Your task to perform on an android device: Open Chrome and go to settings Image 0: 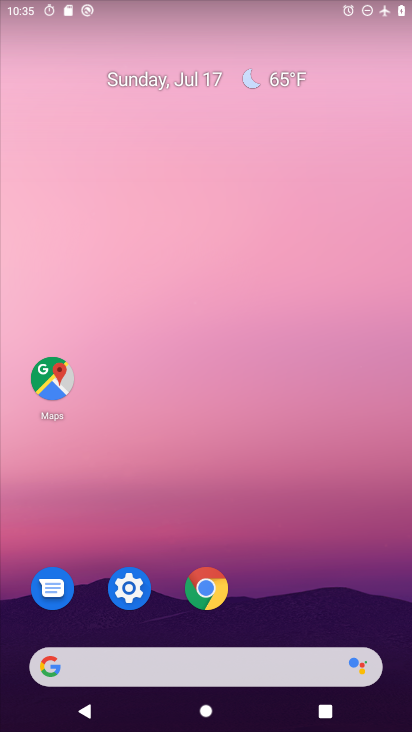
Step 0: drag from (219, 689) to (244, 70)
Your task to perform on an android device: Open Chrome and go to settings Image 1: 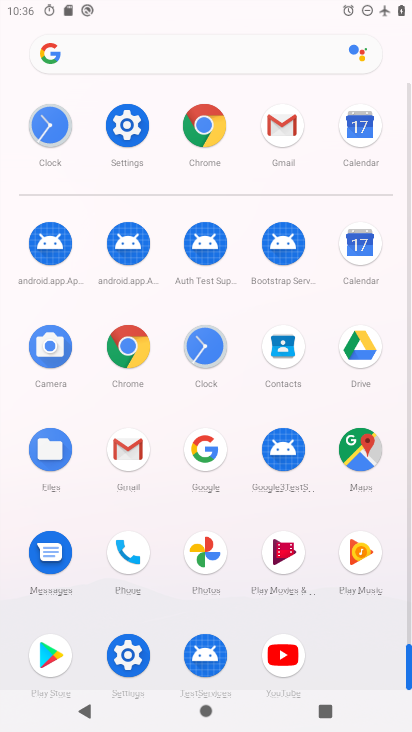
Step 1: click (140, 120)
Your task to perform on an android device: Open Chrome and go to settings Image 2: 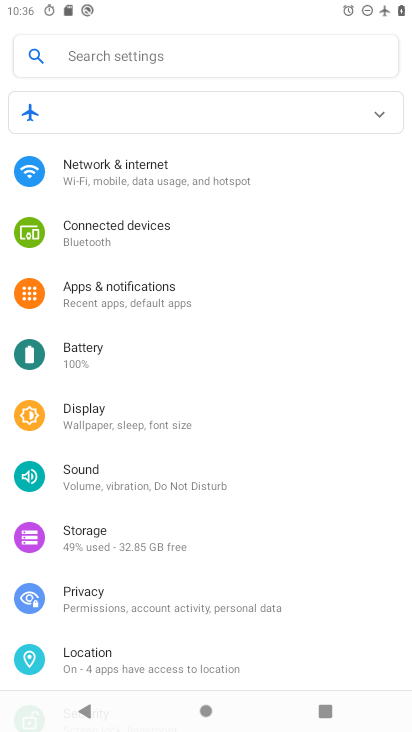
Step 2: drag from (178, 436) to (160, 198)
Your task to perform on an android device: Open Chrome and go to settings Image 3: 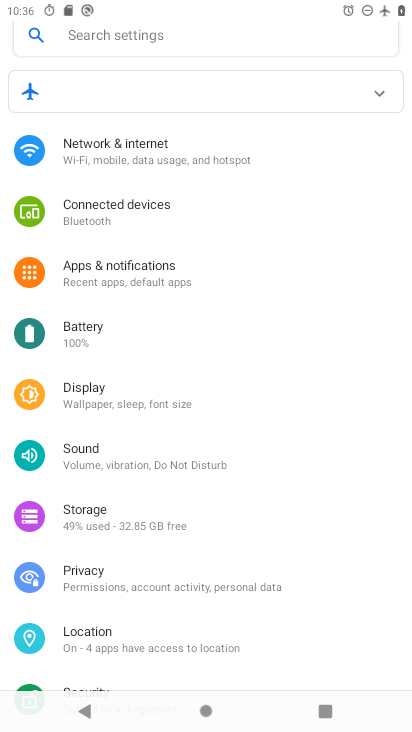
Step 3: drag from (110, 302) to (122, 218)
Your task to perform on an android device: Open Chrome and go to settings Image 4: 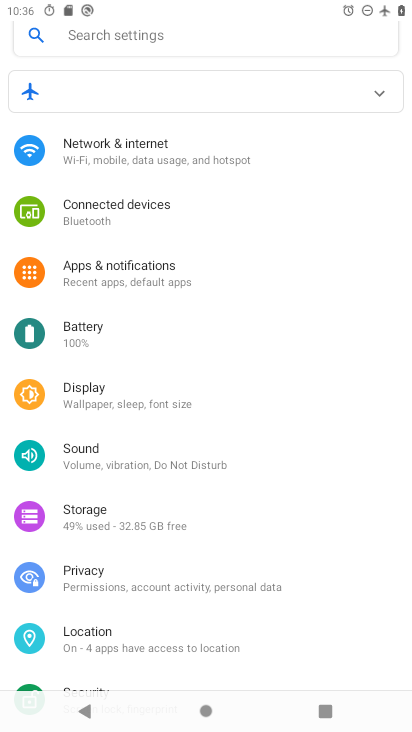
Step 4: press back button
Your task to perform on an android device: Open Chrome and go to settings Image 5: 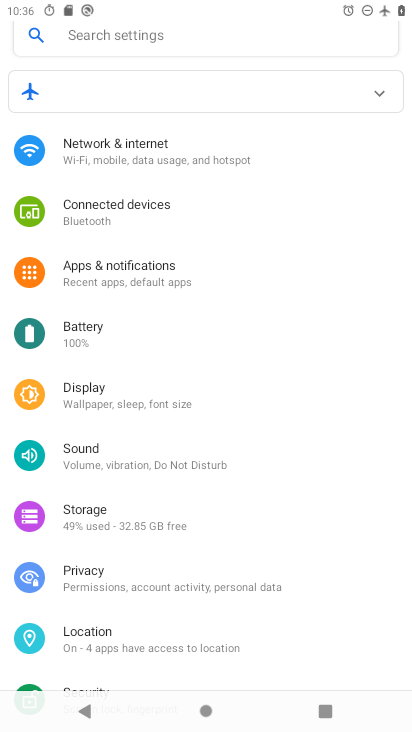
Step 5: press back button
Your task to perform on an android device: Open Chrome and go to settings Image 6: 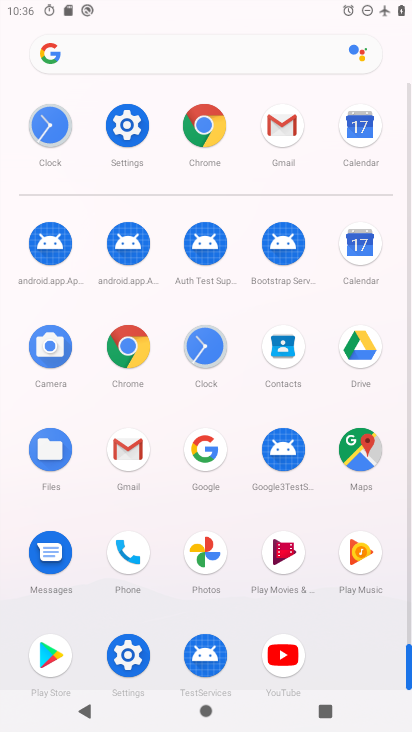
Step 6: press back button
Your task to perform on an android device: Open Chrome and go to settings Image 7: 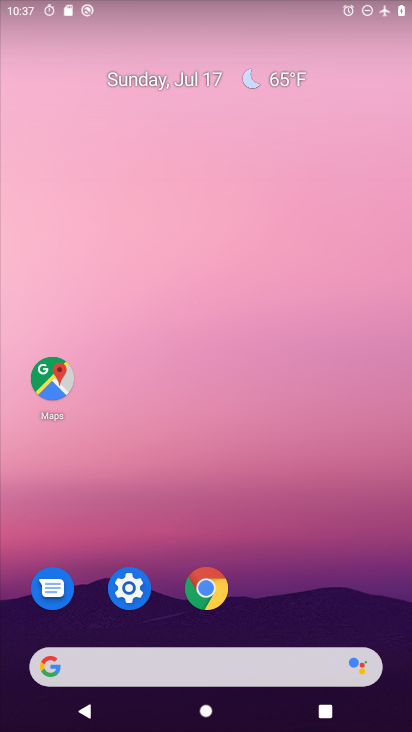
Step 7: press home button
Your task to perform on an android device: Open Chrome and go to settings Image 8: 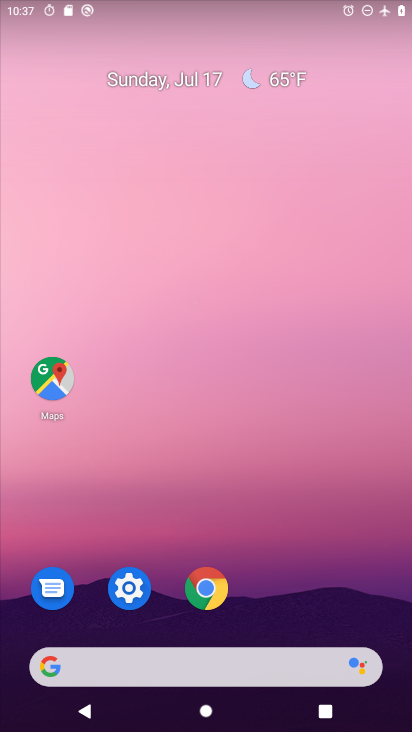
Step 8: drag from (268, 657) to (205, 116)
Your task to perform on an android device: Open Chrome and go to settings Image 9: 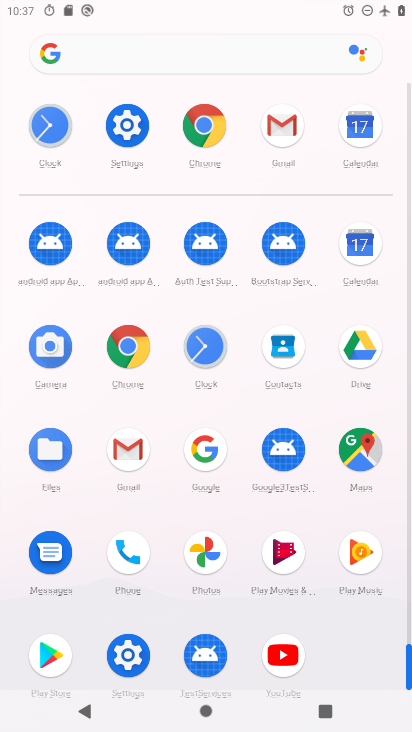
Step 9: click (134, 116)
Your task to perform on an android device: Open Chrome and go to settings Image 10: 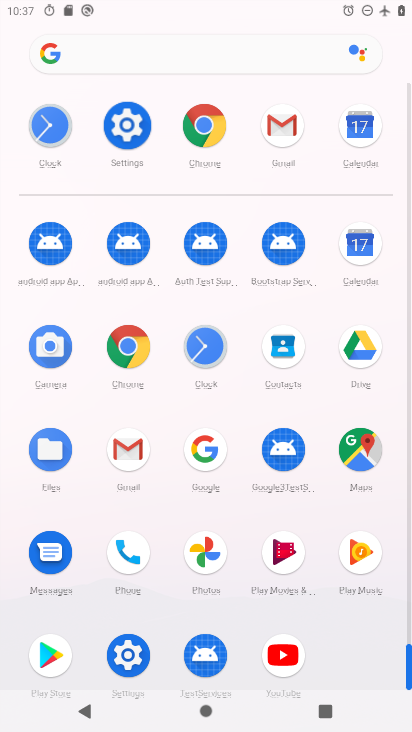
Step 10: click (134, 116)
Your task to perform on an android device: Open Chrome and go to settings Image 11: 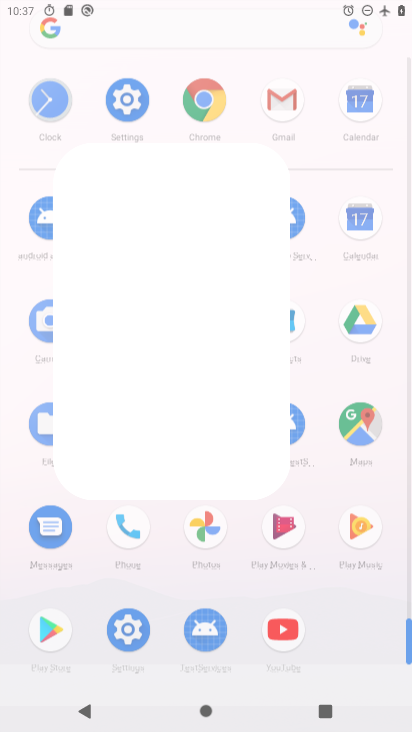
Step 11: click (134, 116)
Your task to perform on an android device: Open Chrome and go to settings Image 12: 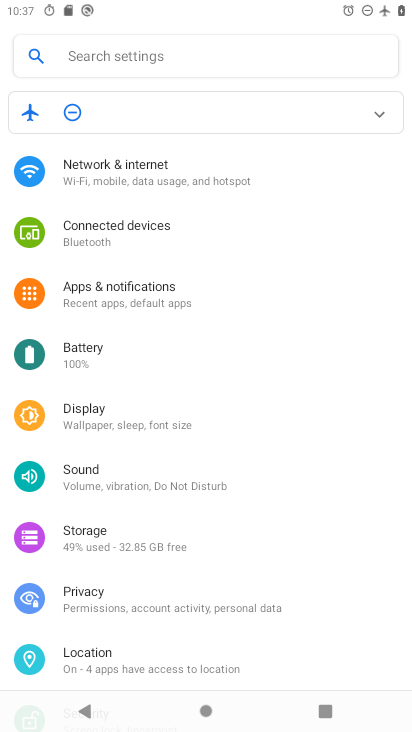
Step 12: press home button
Your task to perform on an android device: Open Chrome and go to settings Image 13: 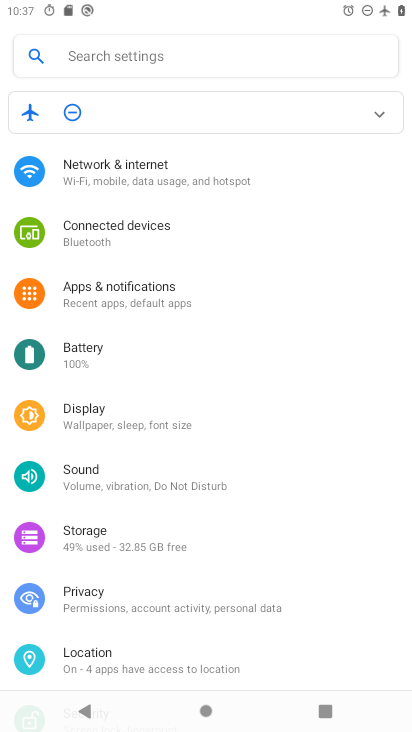
Step 13: press home button
Your task to perform on an android device: Open Chrome and go to settings Image 14: 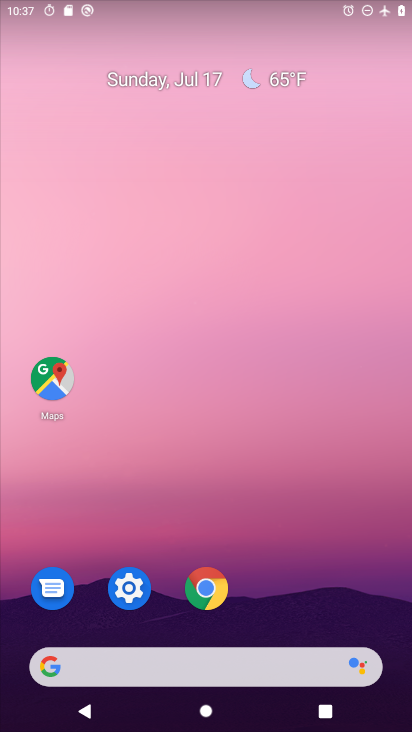
Step 14: click (152, 8)
Your task to perform on an android device: Open Chrome and go to settings Image 15: 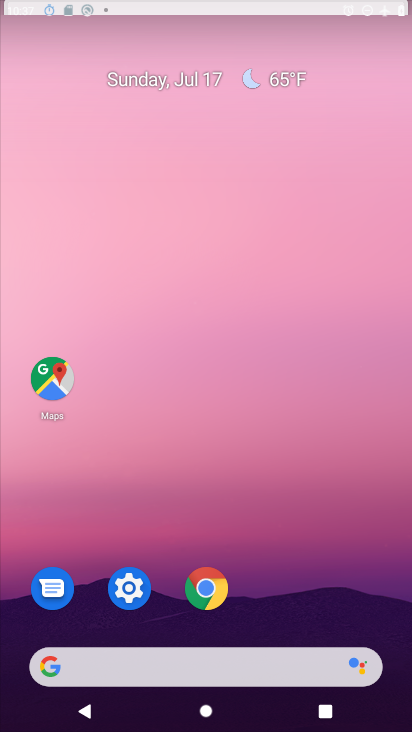
Step 15: drag from (229, 477) to (268, 5)
Your task to perform on an android device: Open Chrome and go to settings Image 16: 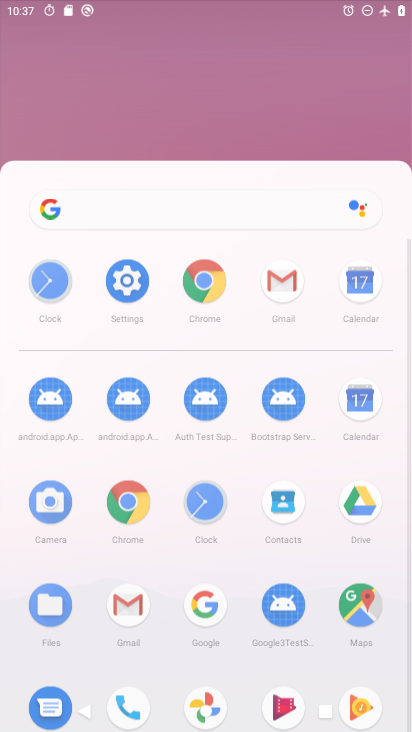
Step 16: drag from (265, 661) to (296, 17)
Your task to perform on an android device: Open Chrome and go to settings Image 17: 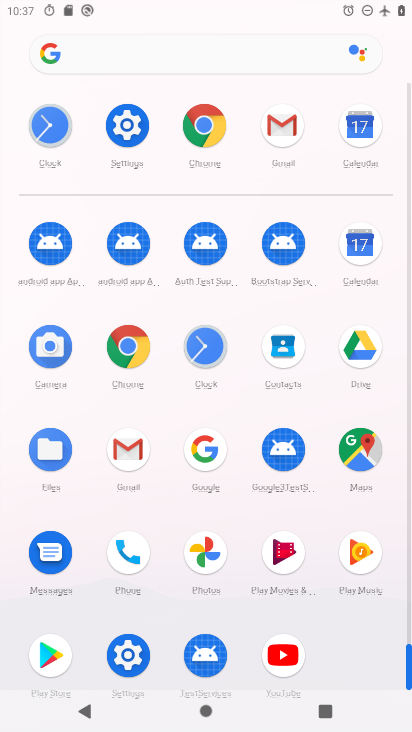
Step 17: click (218, 127)
Your task to perform on an android device: Open Chrome and go to settings Image 18: 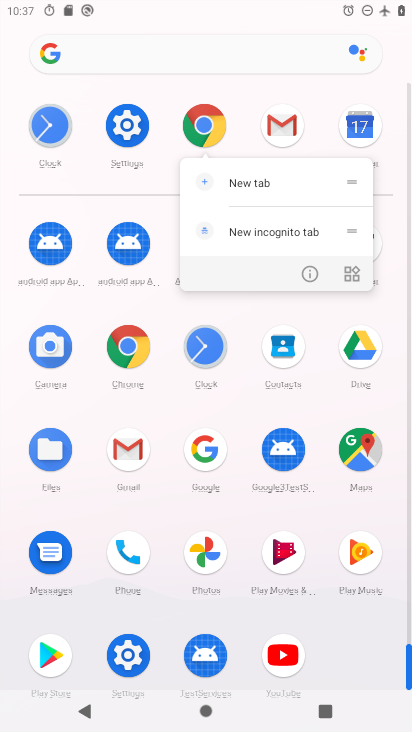
Step 18: click (205, 125)
Your task to perform on an android device: Open Chrome and go to settings Image 19: 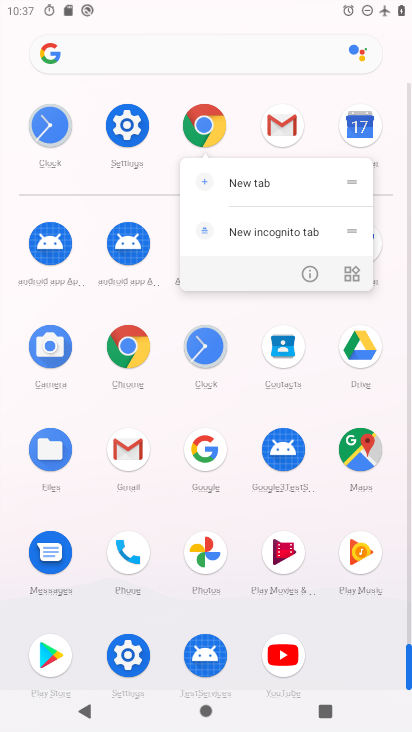
Step 19: click (203, 127)
Your task to perform on an android device: Open Chrome and go to settings Image 20: 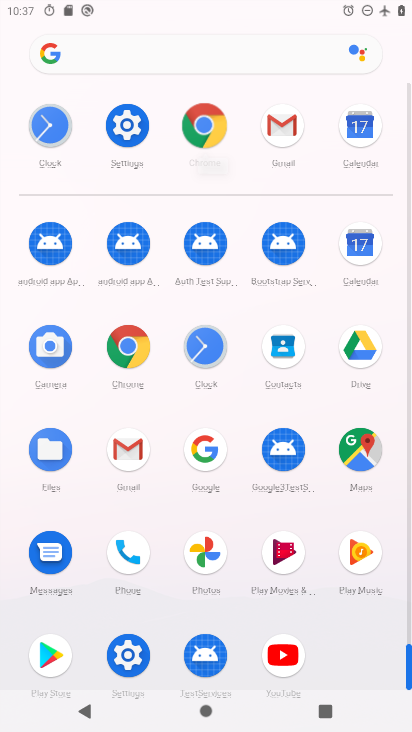
Step 20: click (197, 129)
Your task to perform on an android device: Open Chrome and go to settings Image 21: 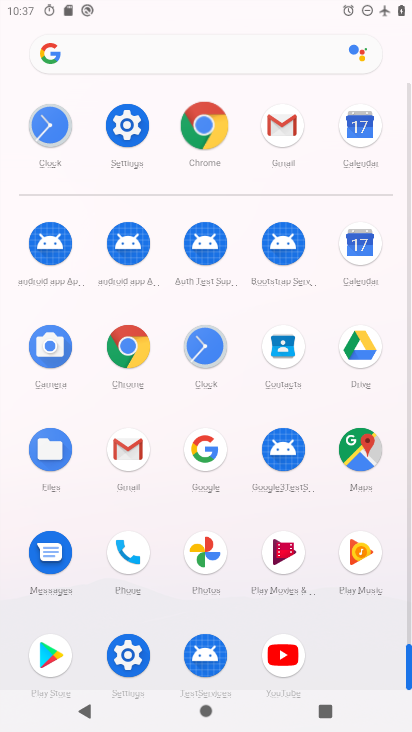
Step 21: click (196, 130)
Your task to perform on an android device: Open Chrome and go to settings Image 22: 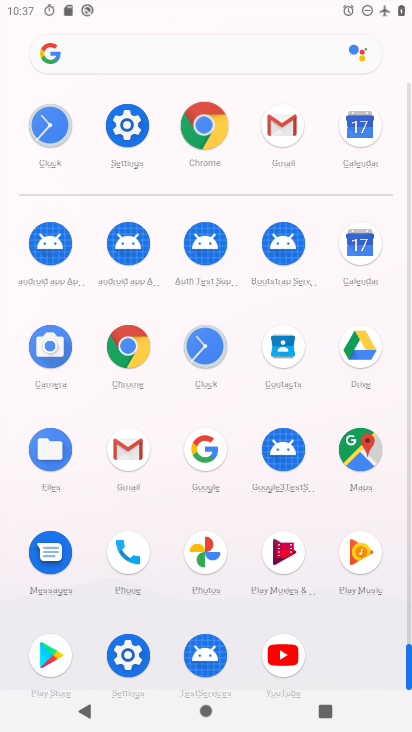
Step 22: click (197, 133)
Your task to perform on an android device: Open Chrome and go to settings Image 23: 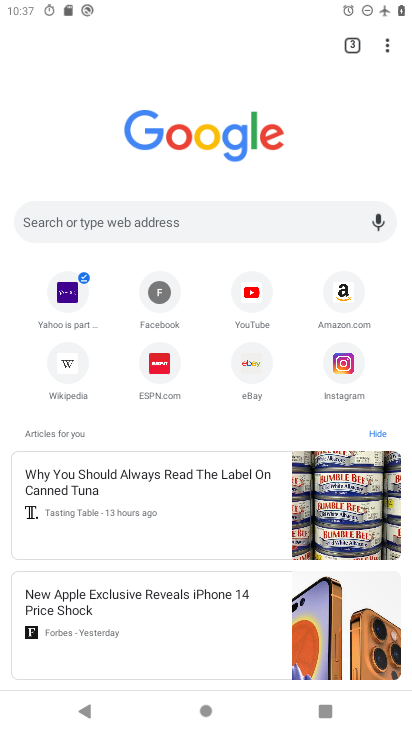
Step 23: click (388, 41)
Your task to perform on an android device: Open Chrome and go to settings Image 24: 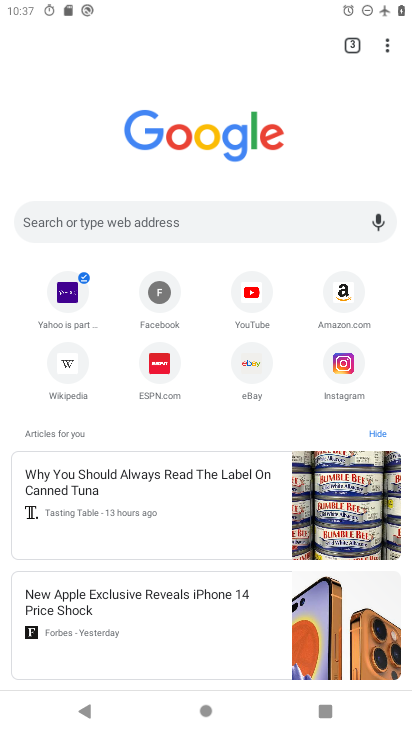
Step 24: click (383, 52)
Your task to perform on an android device: Open Chrome and go to settings Image 25: 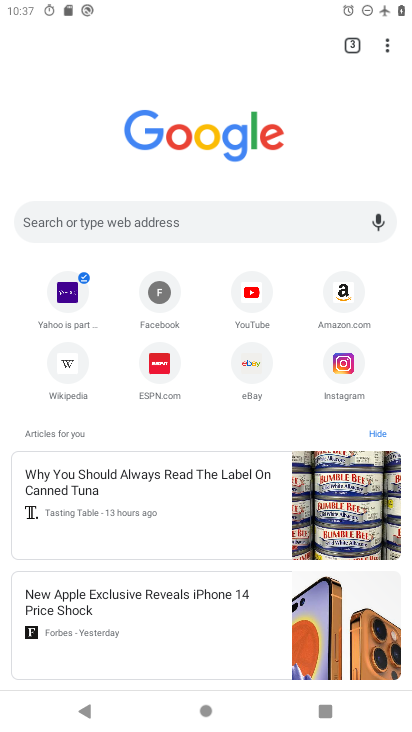
Step 25: drag from (384, 44) to (216, 380)
Your task to perform on an android device: Open Chrome and go to settings Image 26: 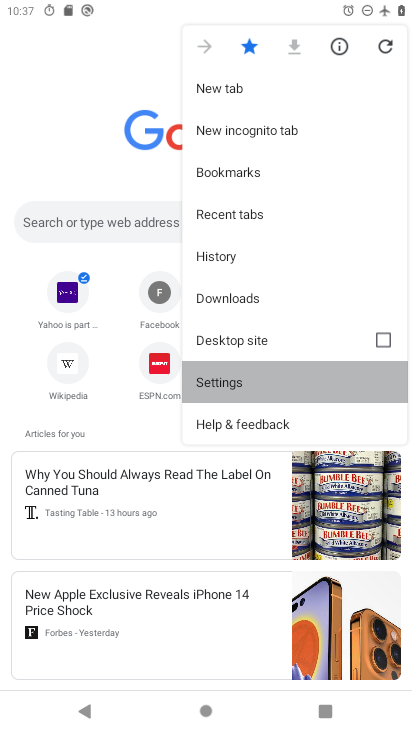
Step 26: click (216, 381)
Your task to perform on an android device: Open Chrome and go to settings Image 27: 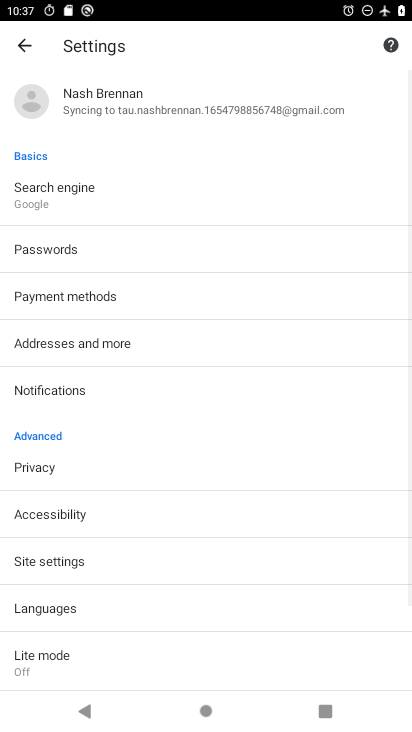
Step 27: drag from (33, 609) to (60, 282)
Your task to perform on an android device: Open Chrome and go to settings Image 28: 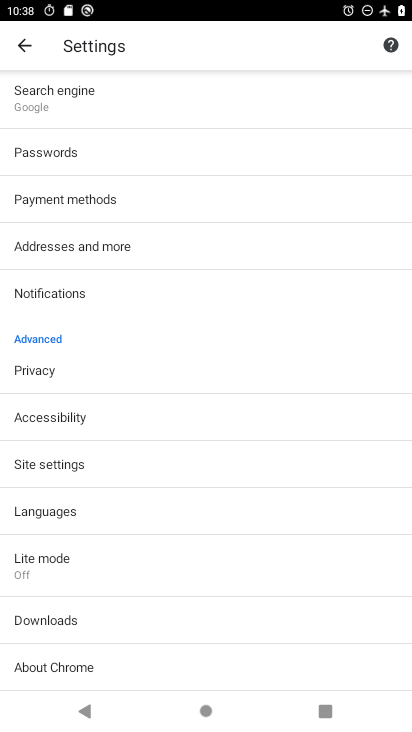
Step 28: click (42, 467)
Your task to perform on an android device: Open Chrome and go to settings Image 29: 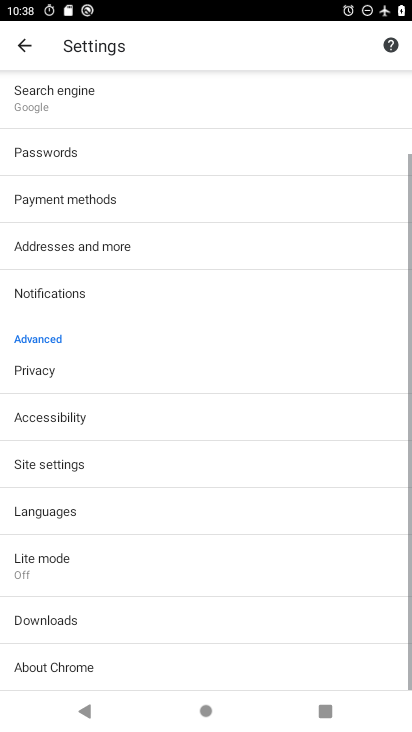
Step 29: click (42, 467)
Your task to perform on an android device: Open Chrome and go to settings Image 30: 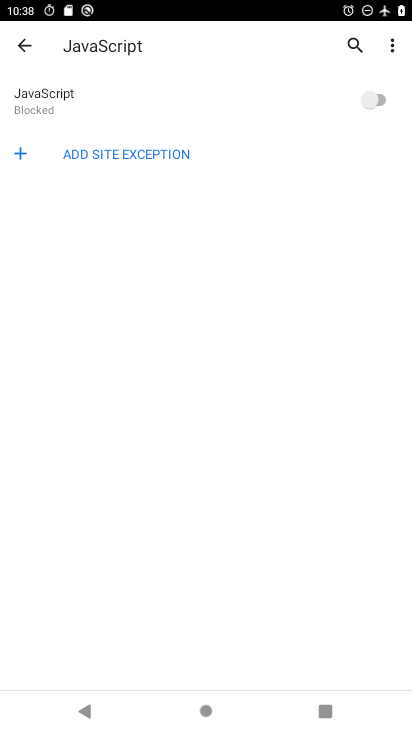
Step 30: task complete